Your task to perform on an android device: Find coffee shops on Maps Image 0: 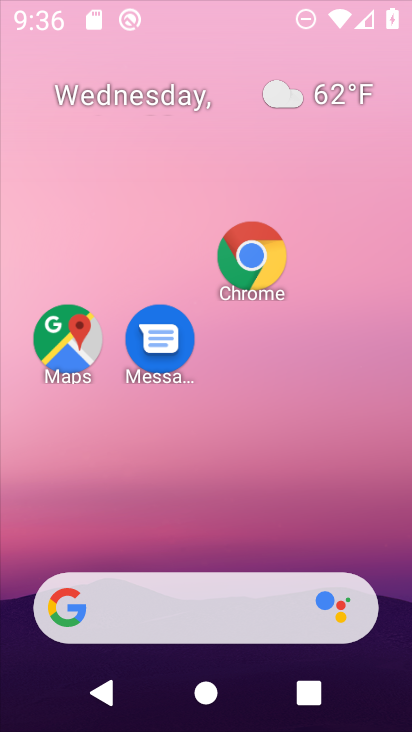
Step 0: drag from (123, 90) to (410, 85)
Your task to perform on an android device: Find coffee shops on Maps Image 1: 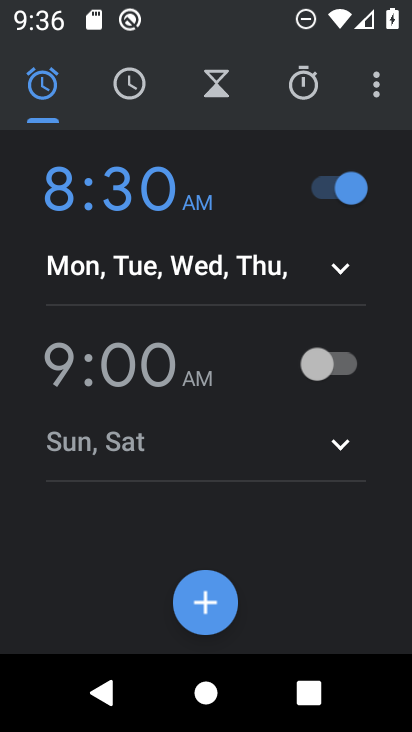
Step 1: press home button
Your task to perform on an android device: Find coffee shops on Maps Image 2: 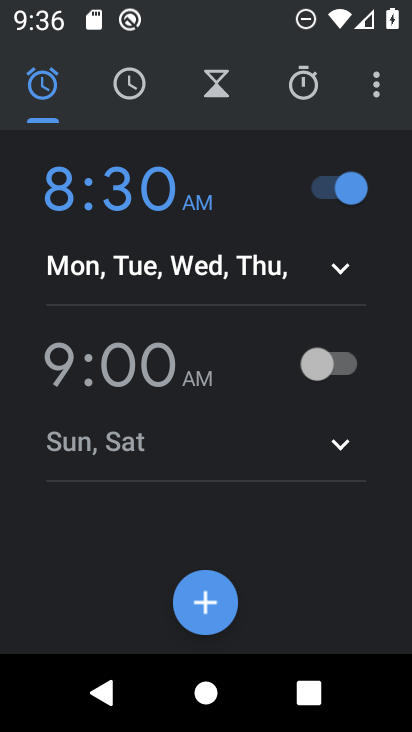
Step 2: press home button
Your task to perform on an android device: Find coffee shops on Maps Image 3: 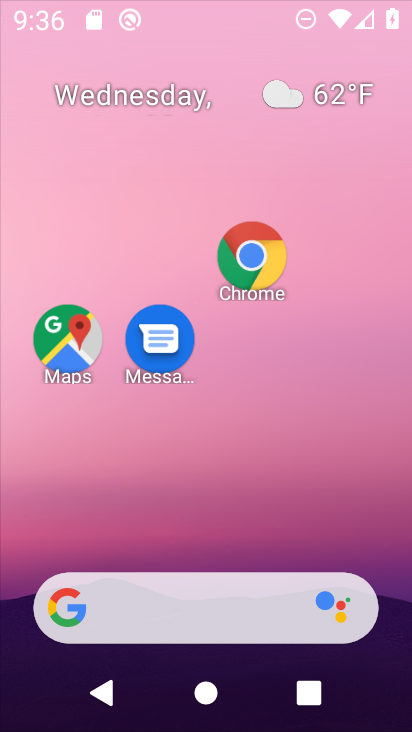
Step 3: drag from (410, 85) to (381, 373)
Your task to perform on an android device: Find coffee shops on Maps Image 4: 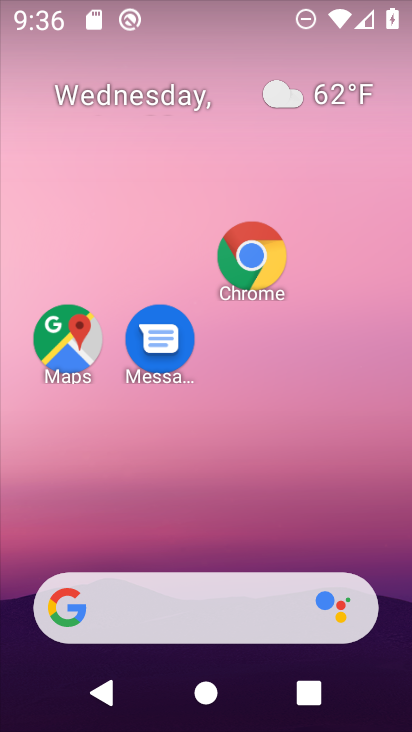
Step 4: click (64, 341)
Your task to perform on an android device: Find coffee shops on Maps Image 5: 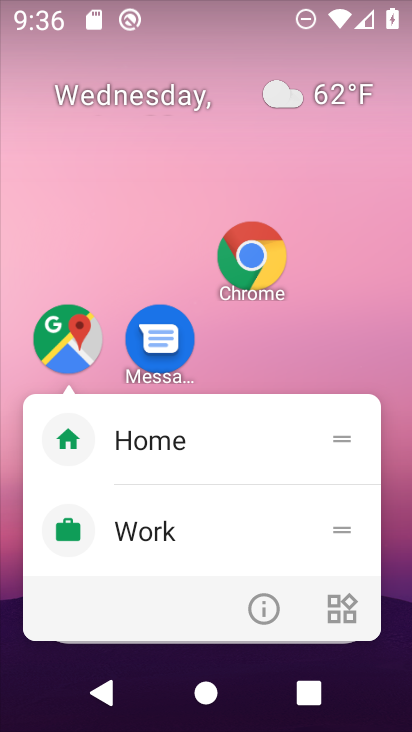
Step 5: click (64, 341)
Your task to perform on an android device: Find coffee shops on Maps Image 6: 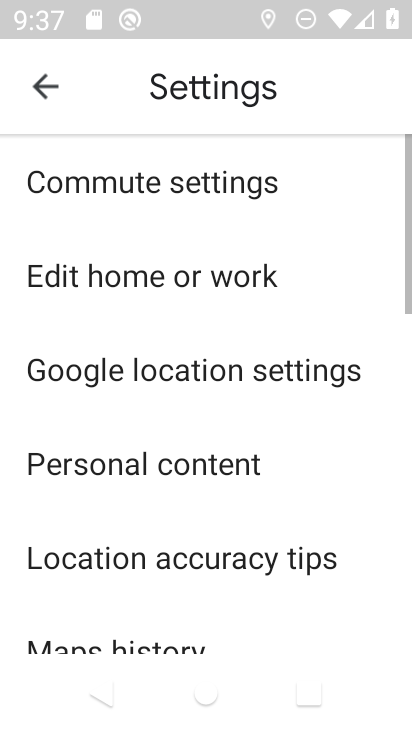
Step 6: press back button
Your task to perform on an android device: Find coffee shops on Maps Image 7: 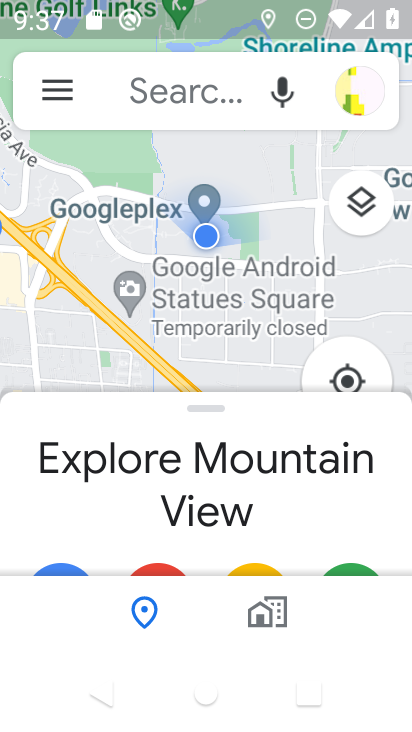
Step 7: click (180, 93)
Your task to perform on an android device: Find coffee shops on Maps Image 8: 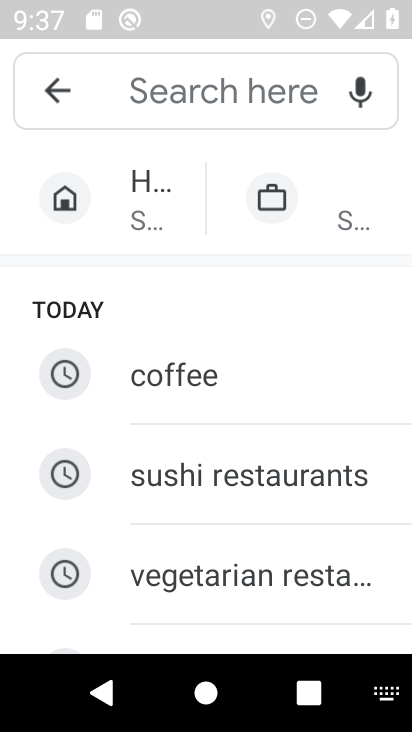
Step 8: type "coffee shop"
Your task to perform on an android device: Find coffee shops on Maps Image 9: 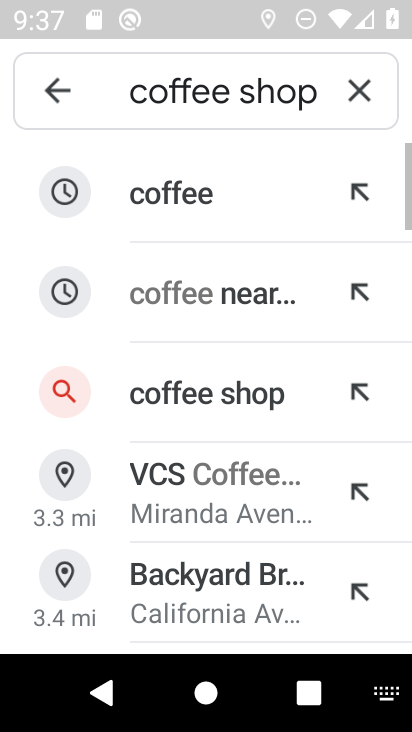
Step 9: click (229, 382)
Your task to perform on an android device: Find coffee shops on Maps Image 10: 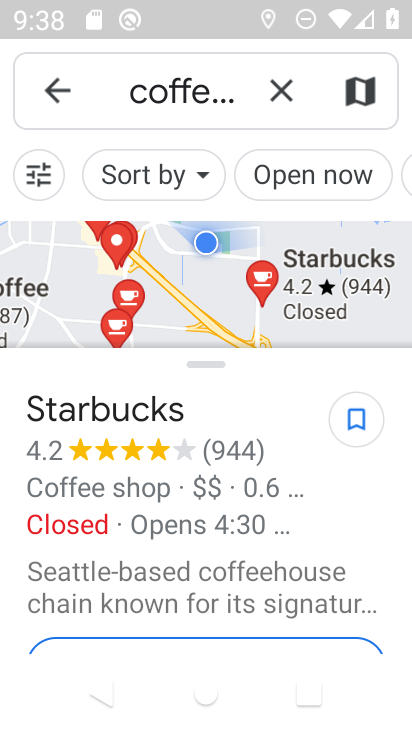
Step 10: task complete